Your task to perform on an android device: Open Youtube and go to the subscriptions tab Image 0: 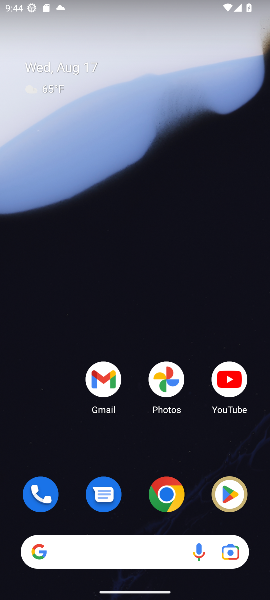
Step 0: drag from (140, 435) to (170, 51)
Your task to perform on an android device: Open Youtube and go to the subscriptions tab Image 1: 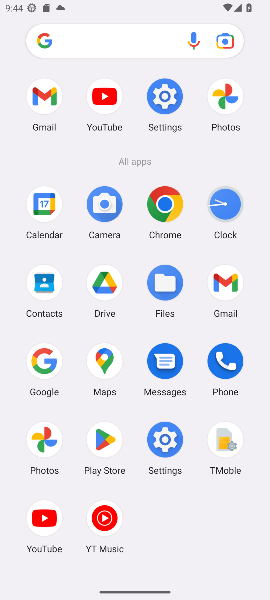
Step 1: click (44, 520)
Your task to perform on an android device: Open Youtube and go to the subscriptions tab Image 2: 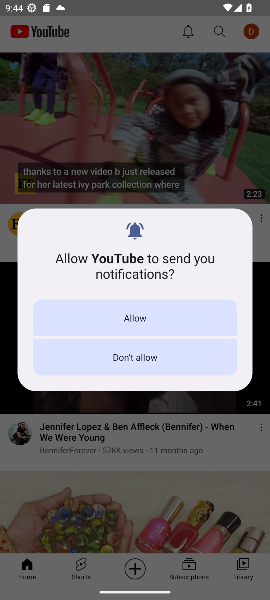
Step 2: click (139, 358)
Your task to perform on an android device: Open Youtube and go to the subscriptions tab Image 3: 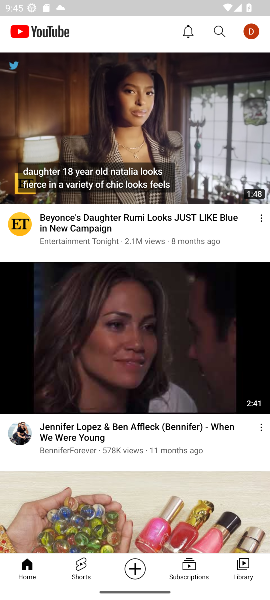
Step 3: click (251, 30)
Your task to perform on an android device: Open Youtube and go to the subscriptions tab Image 4: 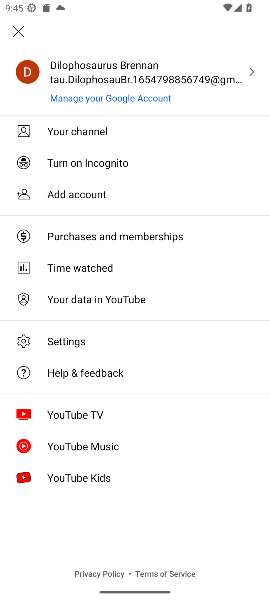
Step 4: click (16, 32)
Your task to perform on an android device: Open Youtube and go to the subscriptions tab Image 5: 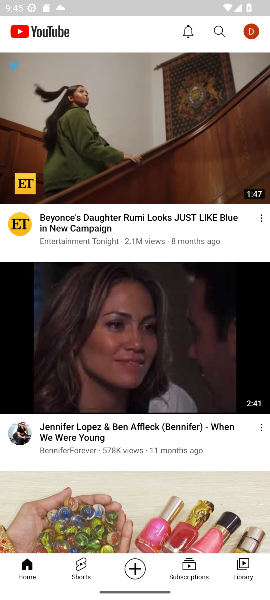
Step 5: click (178, 562)
Your task to perform on an android device: Open Youtube and go to the subscriptions tab Image 6: 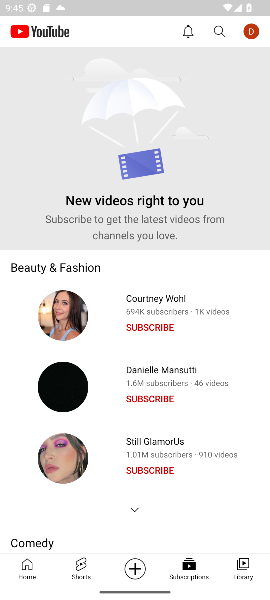
Step 6: task complete